Your task to perform on an android device: change timer sound Image 0: 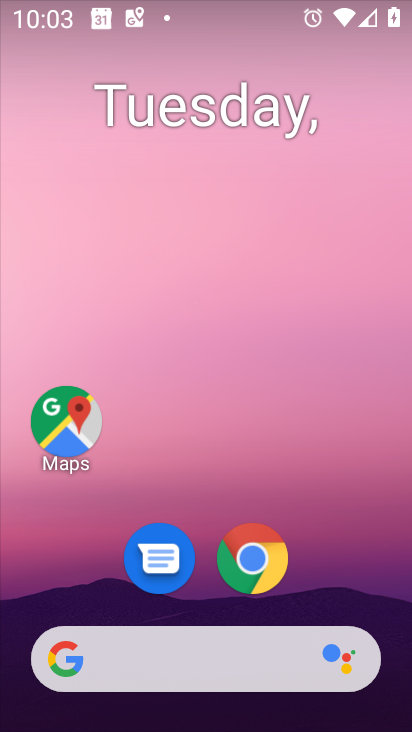
Step 0: drag from (135, 101) to (129, 51)
Your task to perform on an android device: change timer sound Image 1: 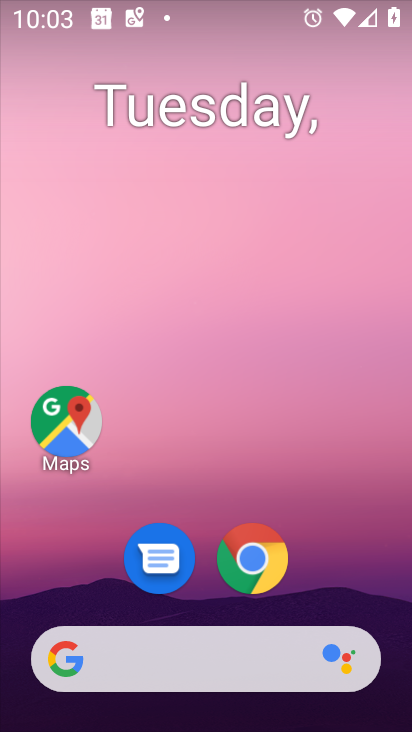
Step 1: drag from (350, 550) to (391, 545)
Your task to perform on an android device: change timer sound Image 2: 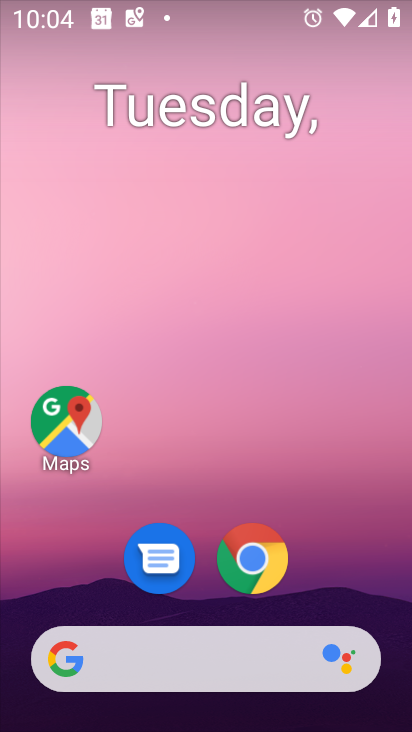
Step 2: drag from (350, 546) to (223, 114)
Your task to perform on an android device: change timer sound Image 3: 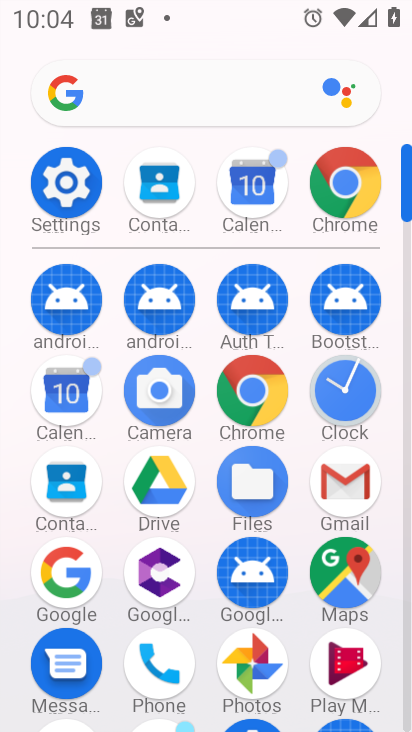
Step 3: click (325, 383)
Your task to perform on an android device: change timer sound Image 4: 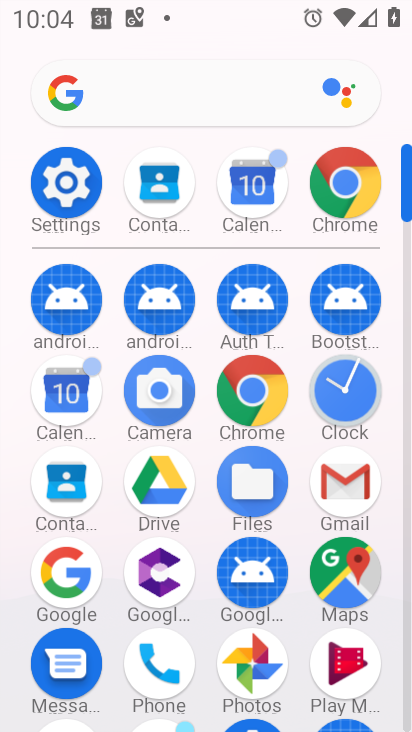
Step 4: click (333, 385)
Your task to perform on an android device: change timer sound Image 5: 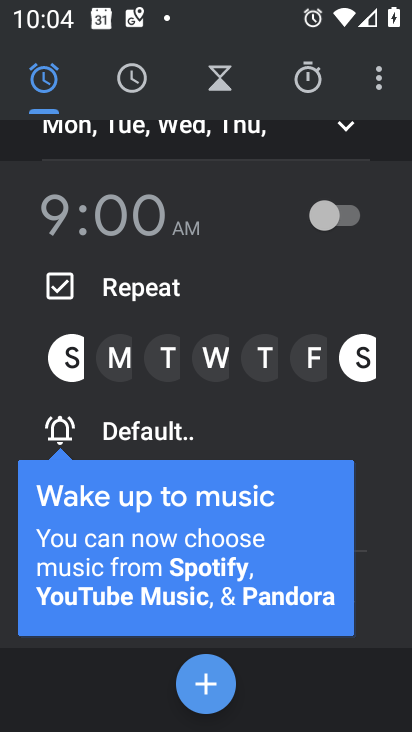
Step 5: press back button
Your task to perform on an android device: change timer sound Image 6: 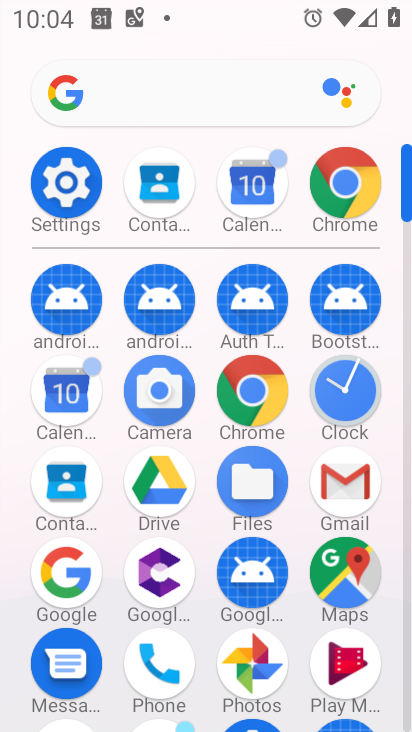
Step 6: click (347, 398)
Your task to perform on an android device: change timer sound Image 7: 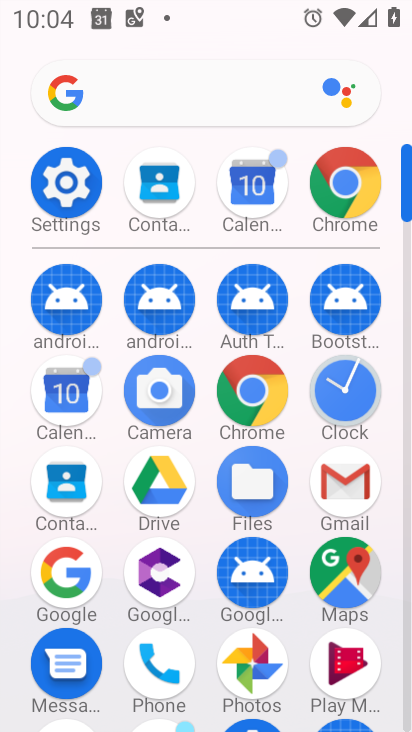
Step 7: click (347, 396)
Your task to perform on an android device: change timer sound Image 8: 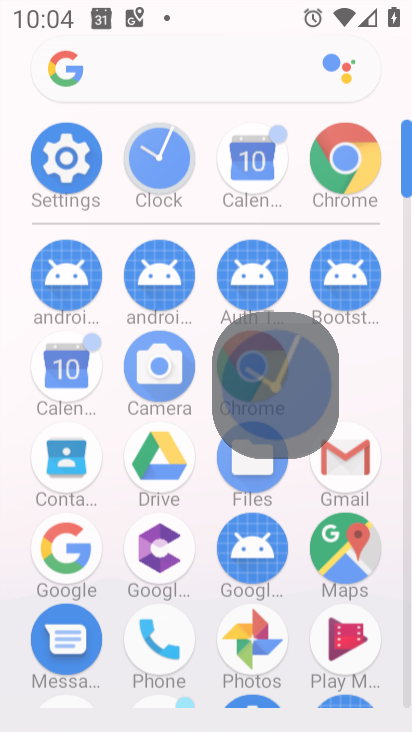
Step 8: click (347, 396)
Your task to perform on an android device: change timer sound Image 9: 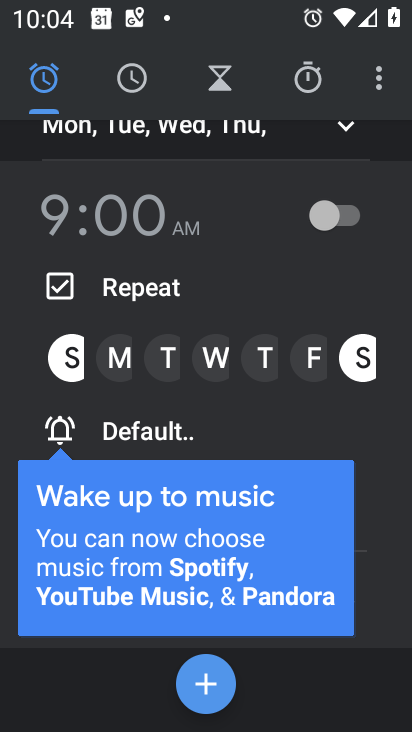
Step 9: click (370, 79)
Your task to perform on an android device: change timer sound Image 10: 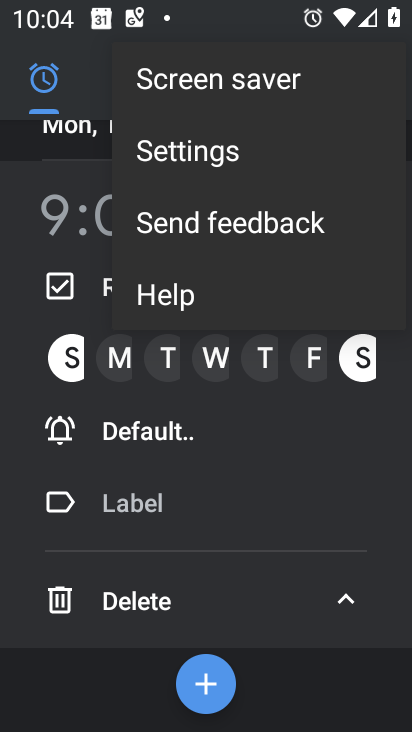
Step 10: click (188, 152)
Your task to perform on an android device: change timer sound Image 11: 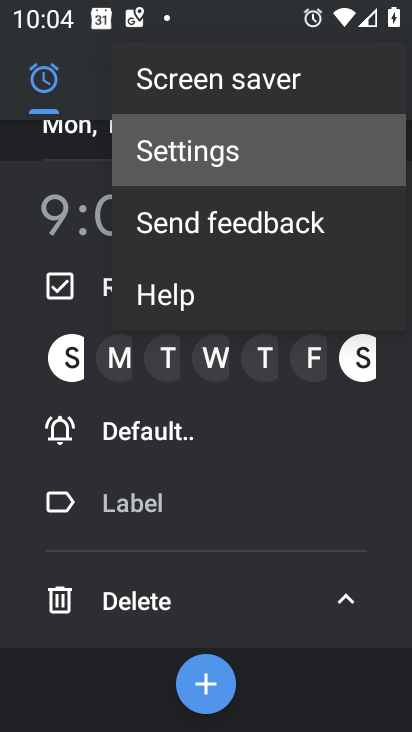
Step 11: click (188, 152)
Your task to perform on an android device: change timer sound Image 12: 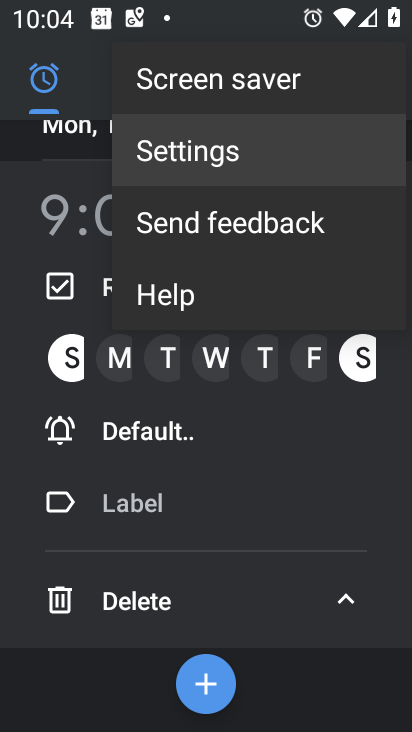
Step 12: click (188, 152)
Your task to perform on an android device: change timer sound Image 13: 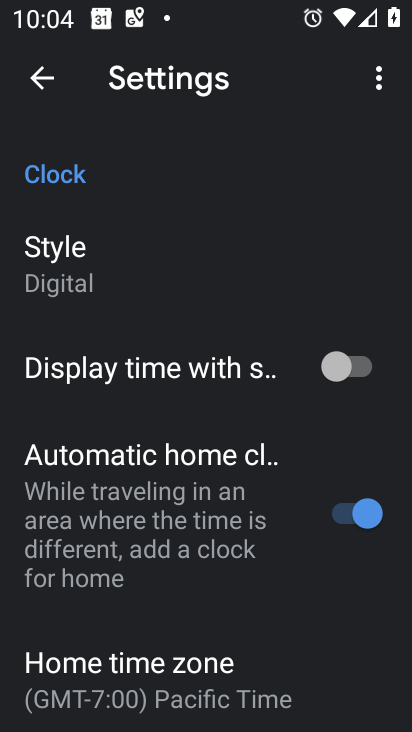
Step 13: drag from (225, 643) to (113, 164)
Your task to perform on an android device: change timer sound Image 14: 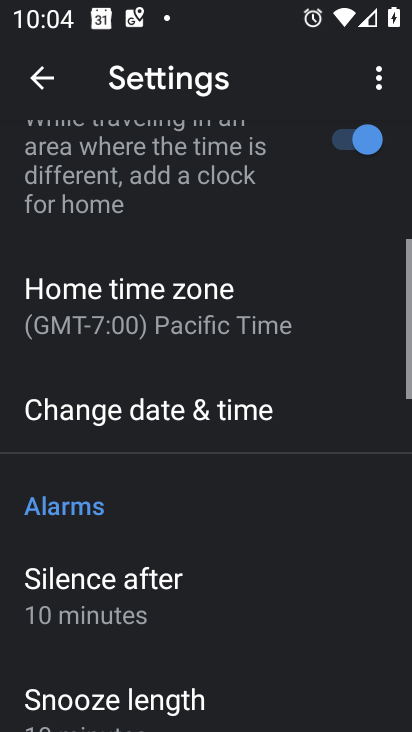
Step 14: drag from (137, 503) to (144, 145)
Your task to perform on an android device: change timer sound Image 15: 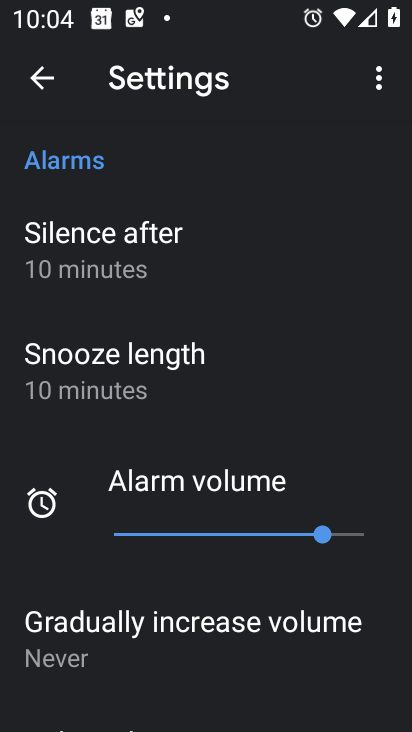
Step 15: drag from (109, 465) to (144, 202)
Your task to perform on an android device: change timer sound Image 16: 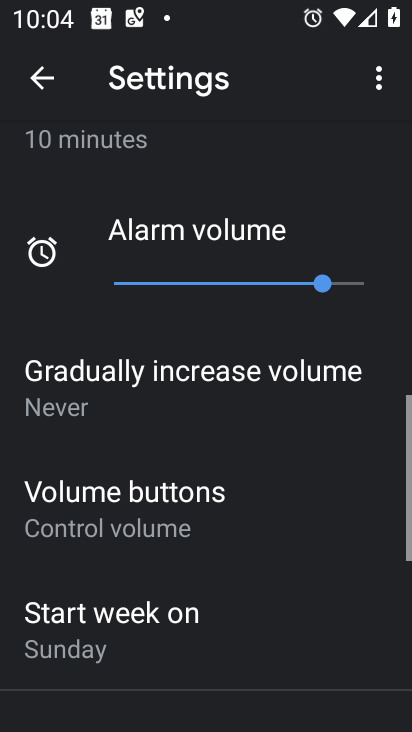
Step 16: drag from (186, 454) to (184, 193)
Your task to perform on an android device: change timer sound Image 17: 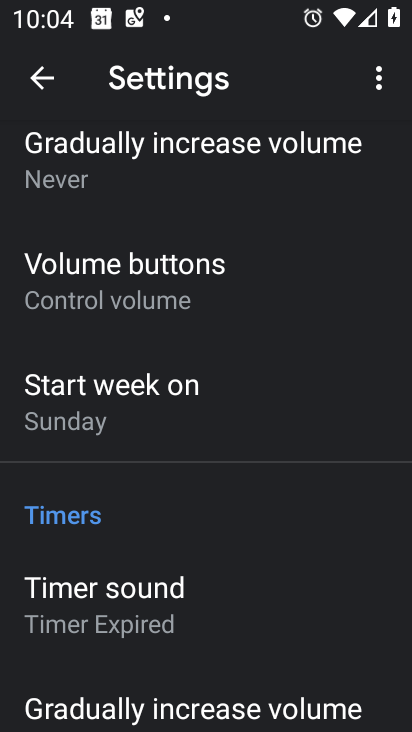
Step 17: click (98, 597)
Your task to perform on an android device: change timer sound Image 18: 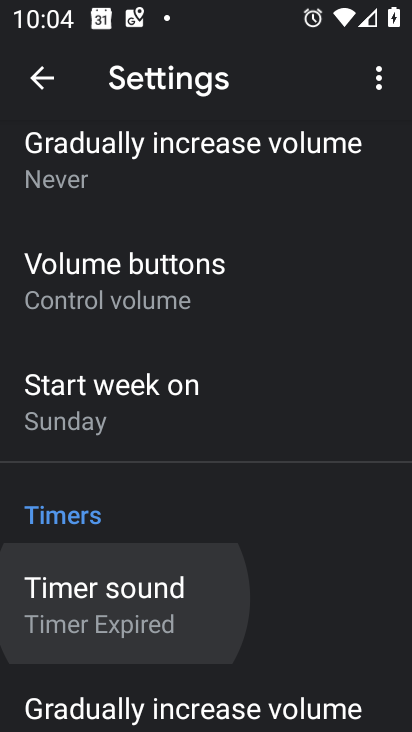
Step 18: click (98, 596)
Your task to perform on an android device: change timer sound Image 19: 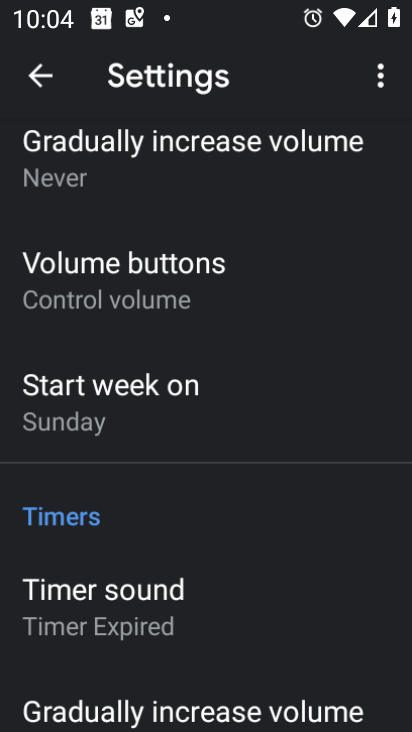
Step 19: click (97, 596)
Your task to perform on an android device: change timer sound Image 20: 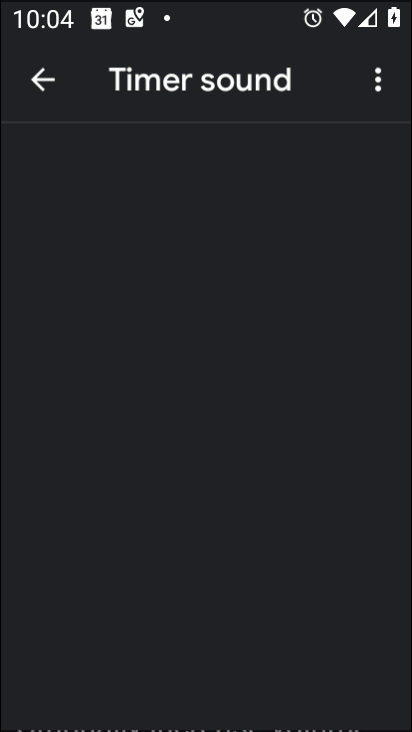
Step 20: click (97, 596)
Your task to perform on an android device: change timer sound Image 21: 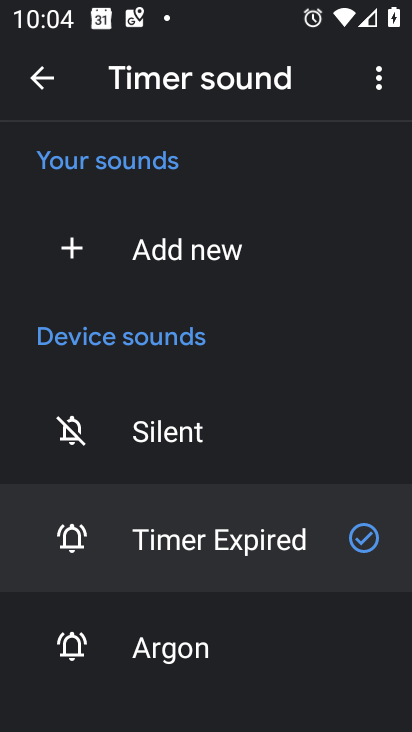
Step 21: click (76, 625)
Your task to perform on an android device: change timer sound Image 22: 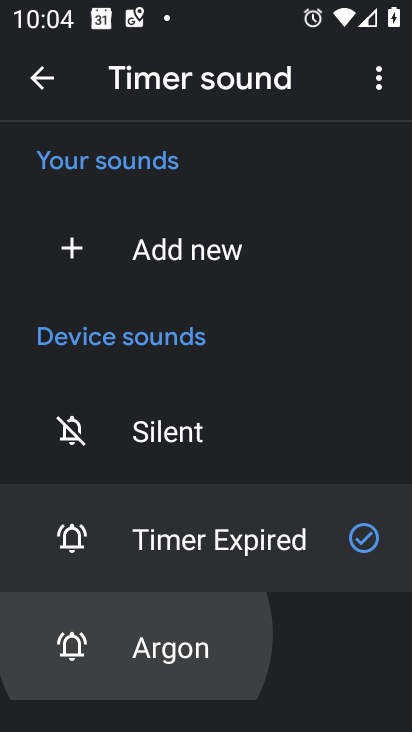
Step 22: click (75, 633)
Your task to perform on an android device: change timer sound Image 23: 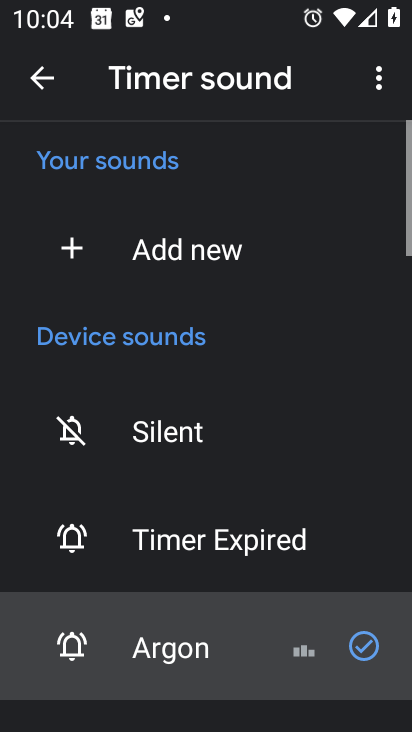
Step 23: click (75, 636)
Your task to perform on an android device: change timer sound Image 24: 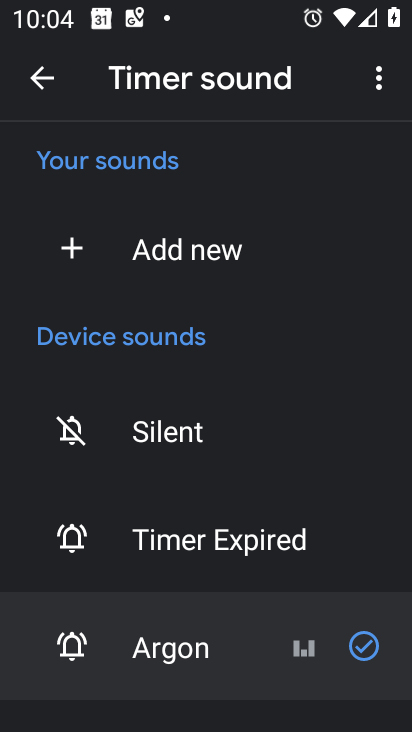
Step 24: task complete